Your task to perform on an android device: Go to notification settings Image 0: 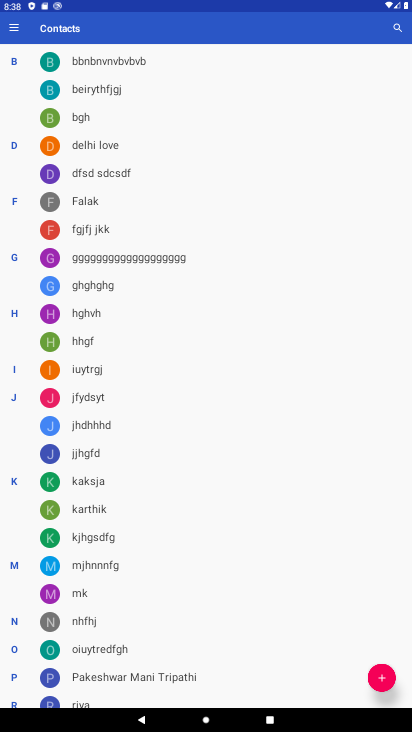
Step 0: drag from (189, 602) to (211, 299)
Your task to perform on an android device: Go to notification settings Image 1: 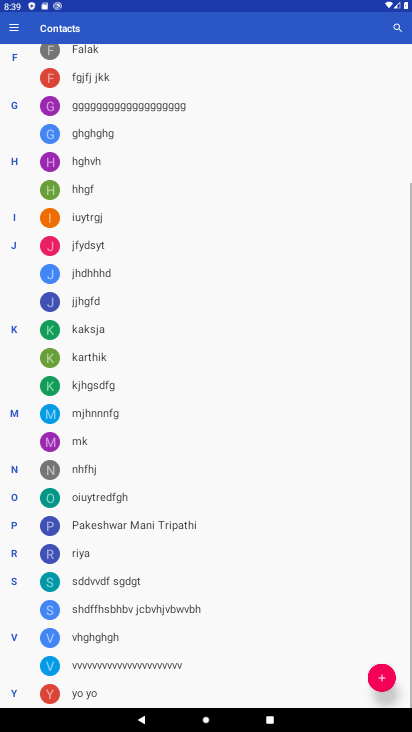
Step 1: click (365, 624)
Your task to perform on an android device: Go to notification settings Image 2: 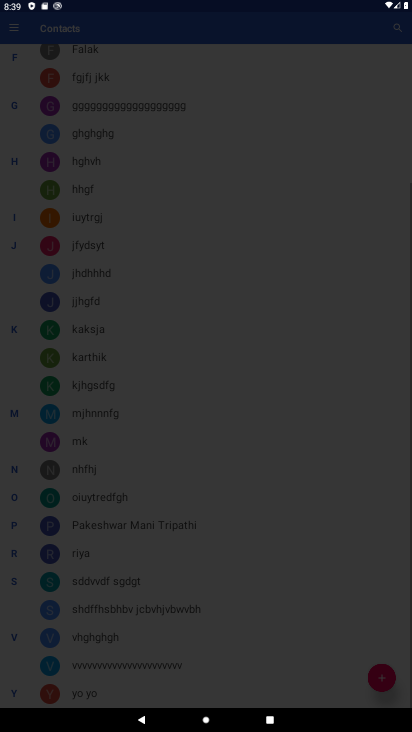
Step 2: press home button
Your task to perform on an android device: Go to notification settings Image 3: 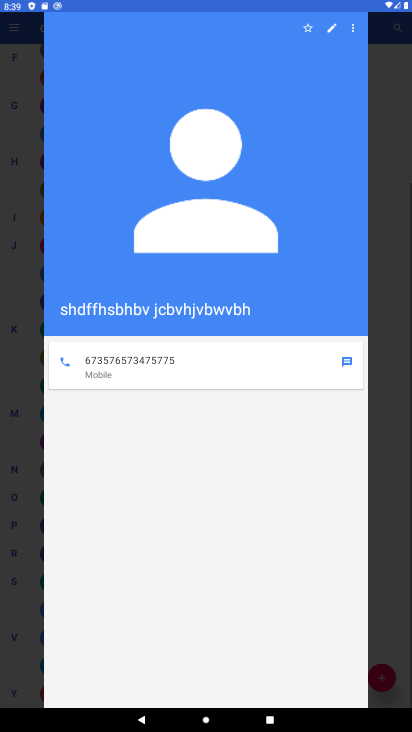
Step 3: drag from (298, 387) to (314, 277)
Your task to perform on an android device: Go to notification settings Image 4: 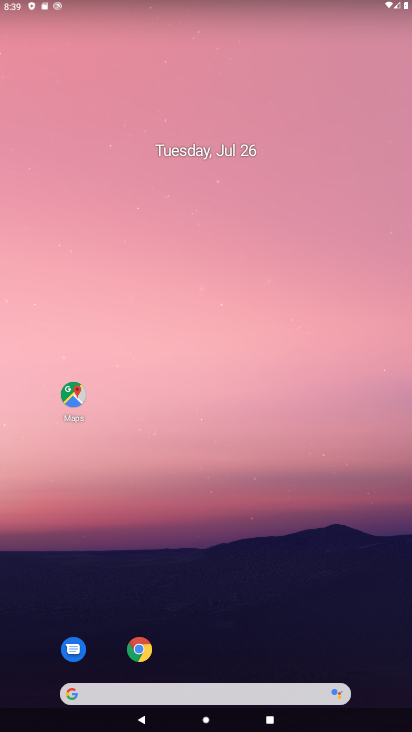
Step 4: drag from (190, 560) to (242, 239)
Your task to perform on an android device: Go to notification settings Image 5: 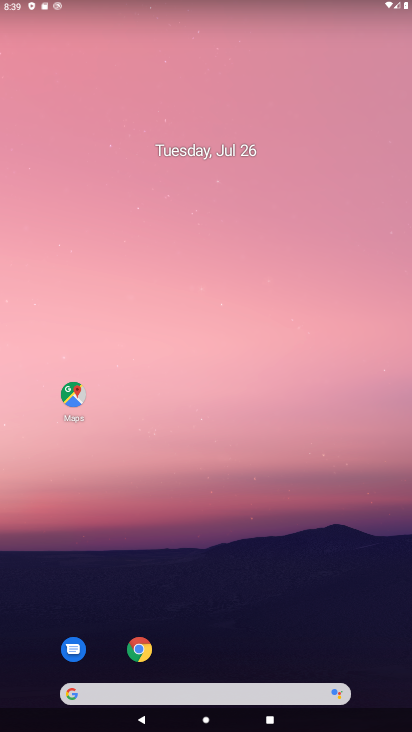
Step 5: drag from (193, 613) to (167, 42)
Your task to perform on an android device: Go to notification settings Image 6: 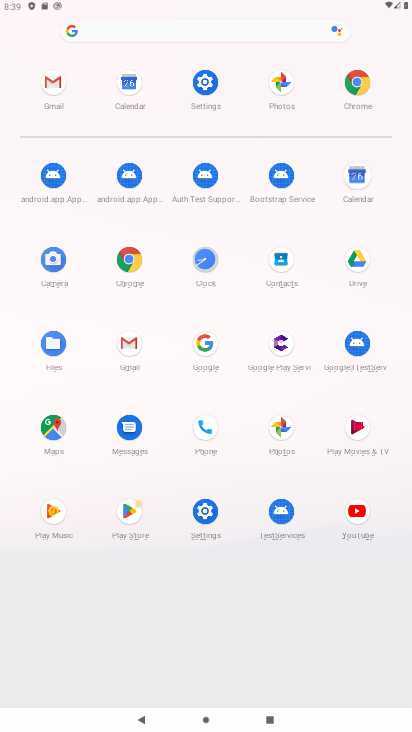
Step 6: click (203, 505)
Your task to perform on an android device: Go to notification settings Image 7: 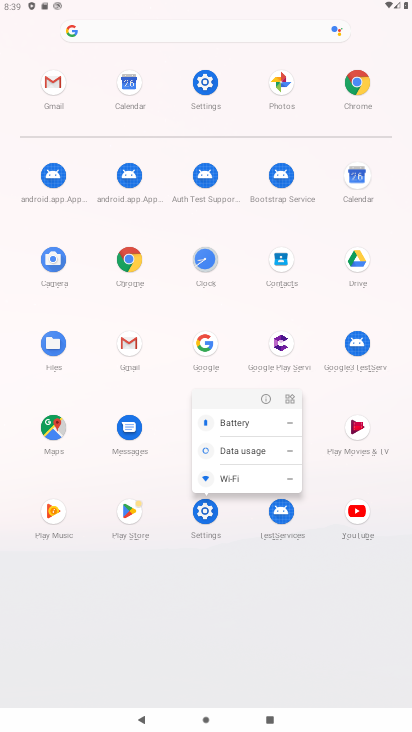
Step 7: click (262, 396)
Your task to perform on an android device: Go to notification settings Image 8: 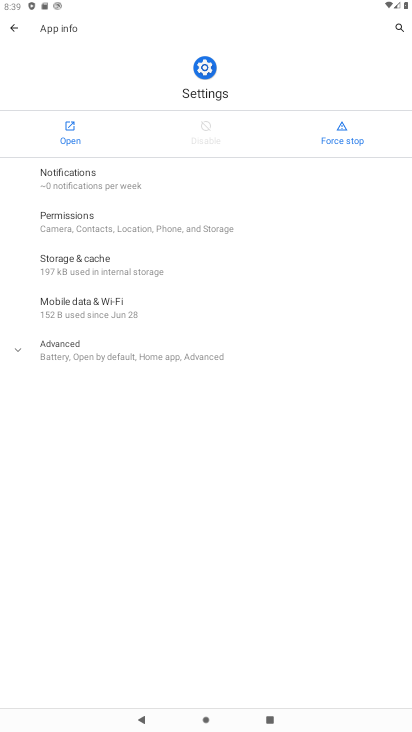
Step 8: click (71, 136)
Your task to perform on an android device: Go to notification settings Image 9: 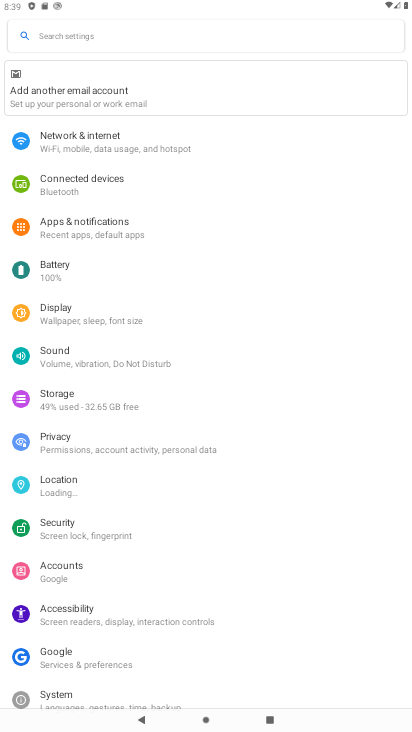
Step 9: click (109, 238)
Your task to perform on an android device: Go to notification settings Image 10: 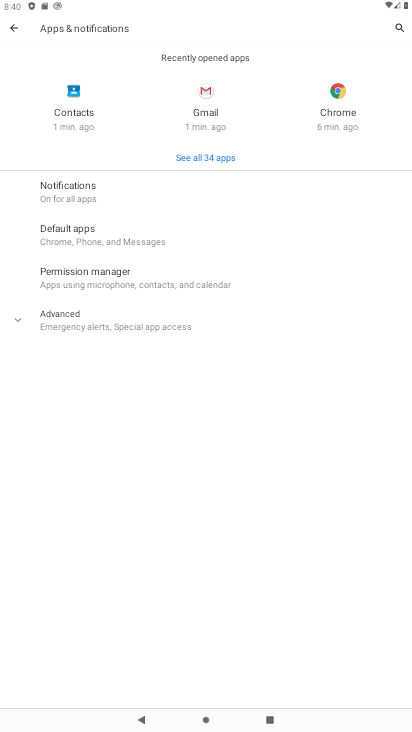
Step 10: click (141, 187)
Your task to perform on an android device: Go to notification settings Image 11: 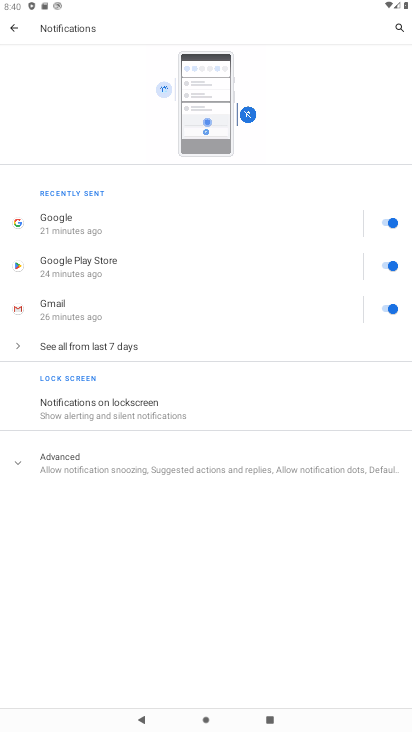
Step 11: task complete